Your task to perform on an android device: turn off location history Image 0: 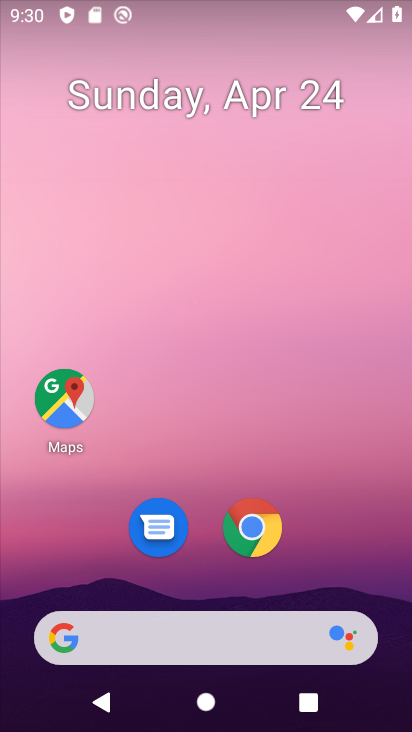
Step 0: drag from (164, 567) to (261, 48)
Your task to perform on an android device: turn off location history Image 1: 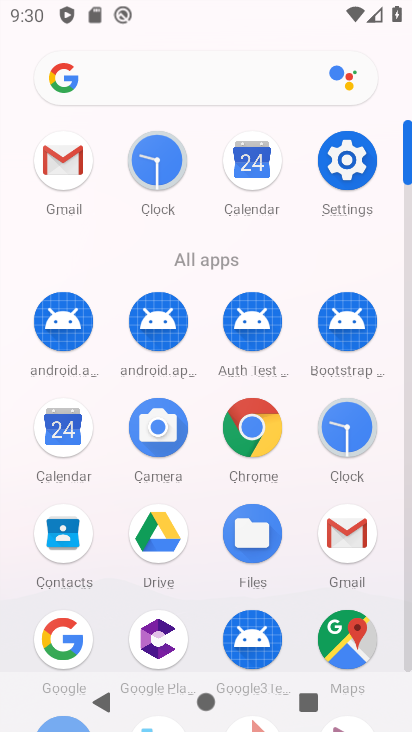
Step 1: click (355, 157)
Your task to perform on an android device: turn off location history Image 2: 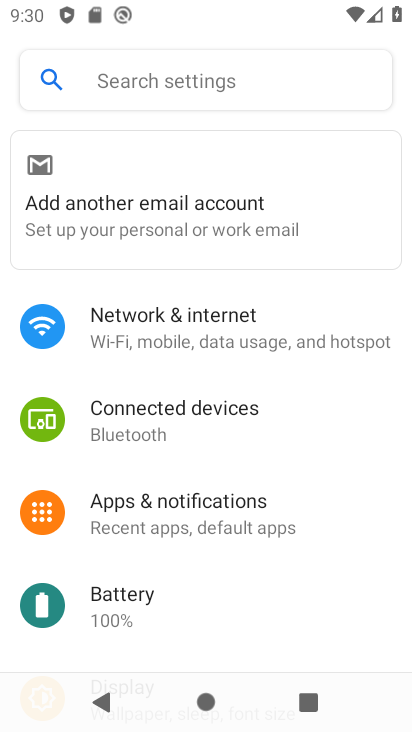
Step 2: drag from (168, 575) to (208, 119)
Your task to perform on an android device: turn off location history Image 3: 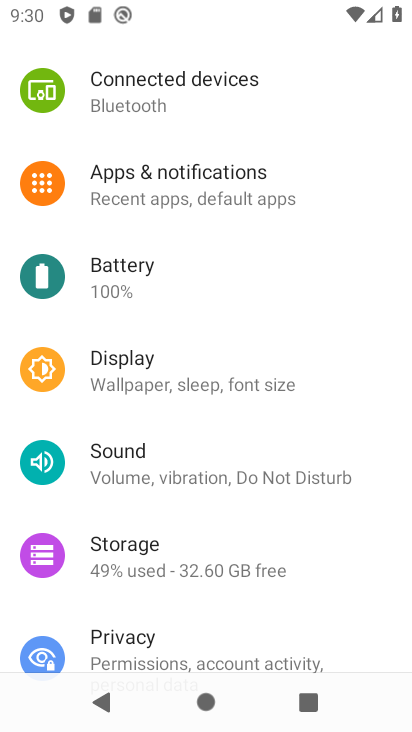
Step 3: drag from (161, 588) to (288, 147)
Your task to perform on an android device: turn off location history Image 4: 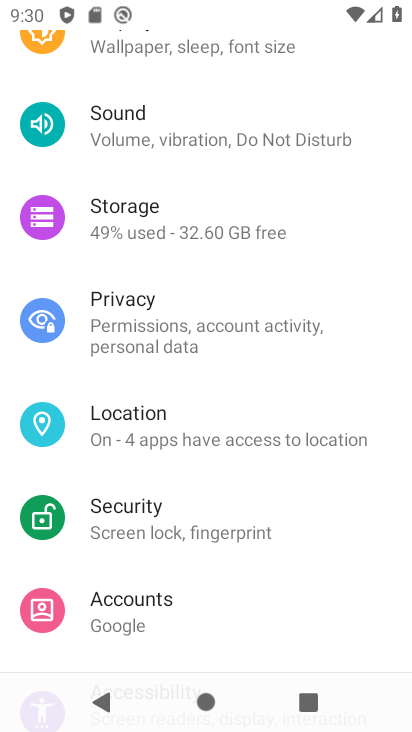
Step 4: click (160, 415)
Your task to perform on an android device: turn off location history Image 5: 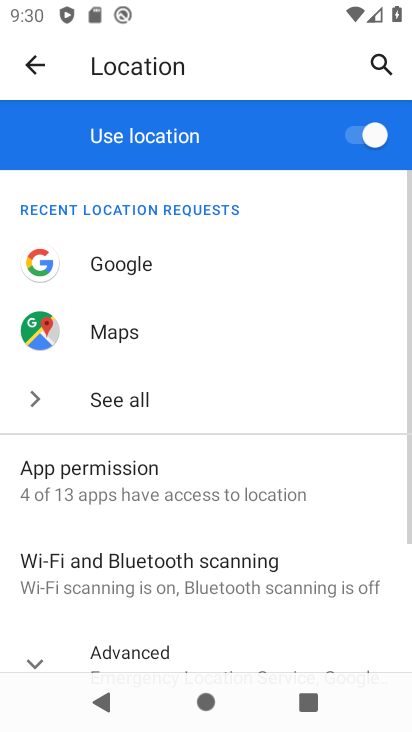
Step 5: drag from (108, 569) to (245, 131)
Your task to perform on an android device: turn off location history Image 6: 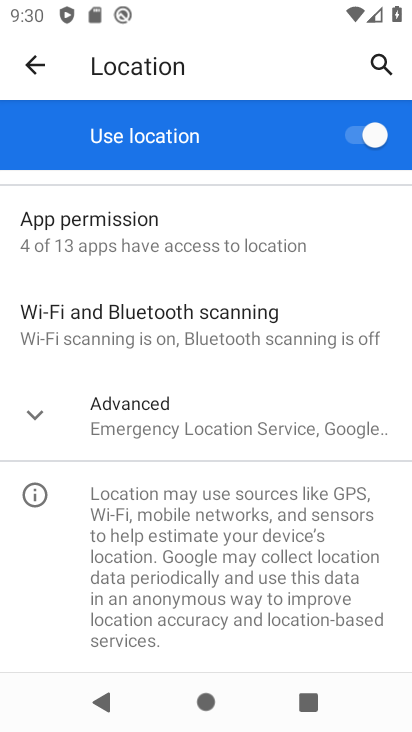
Step 6: click (131, 414)
Your task to perform on an android device: turn off location history Image 7: 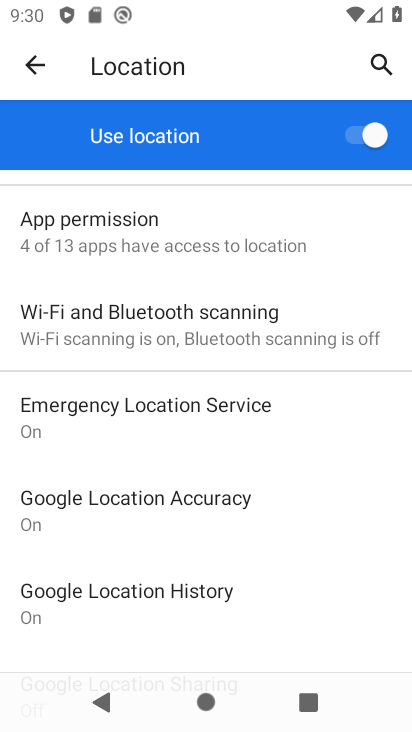
Step 7: click (140, 613)
Your task to perform on an android device: turn off location history Image 8: 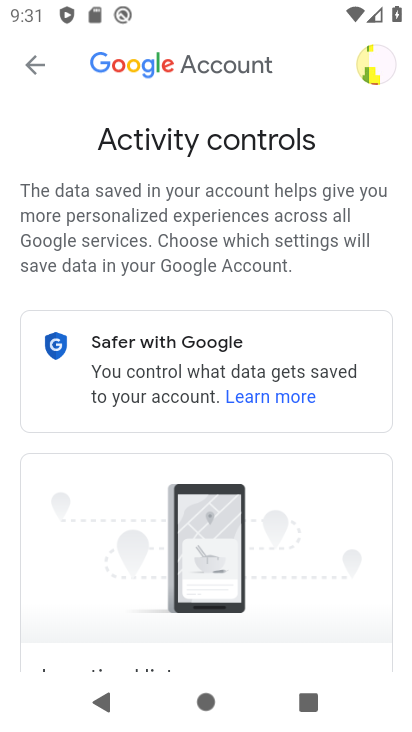
Step 8: task complete